Your task to perform on an android device: create a new album in the google photos Image 0: 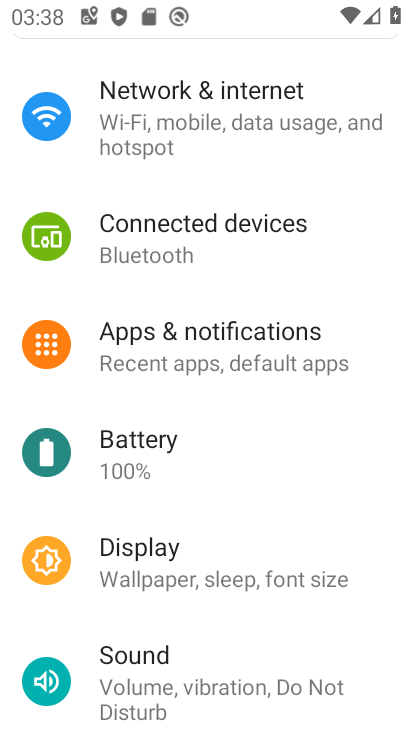
Step 0: press back button
Your task to perform on an android device: create a new album in the google photos Image 1: 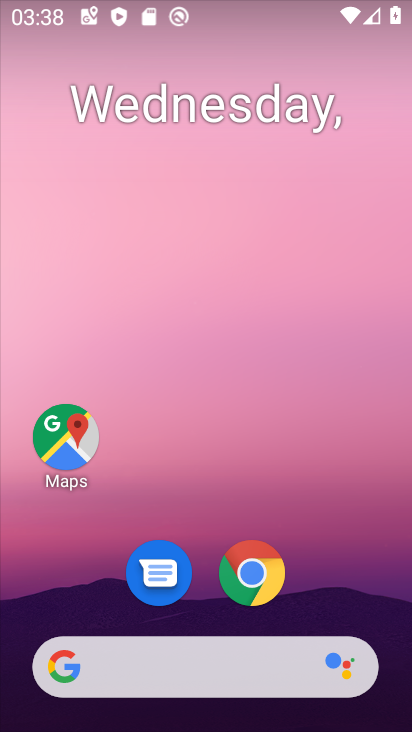
Step 1: drag from (329, 563) to (276, 40)
Your task to perform on an android device: create a new album in the google photos Image 2: 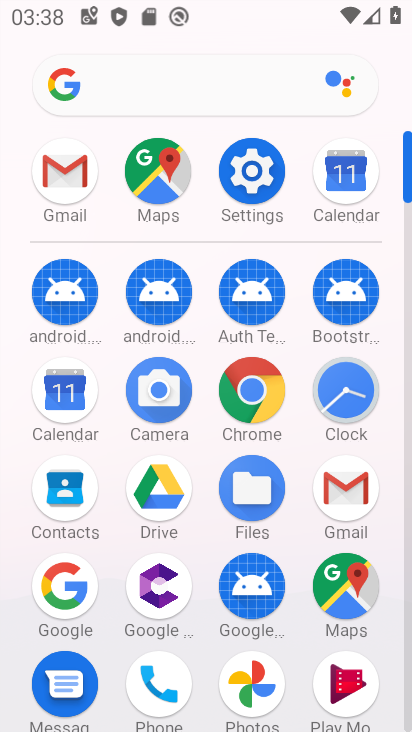
Step 2: drag from (192, 573) to (207, 401)
Your task to perform on an android device: create a new album in the google photos Image 3: 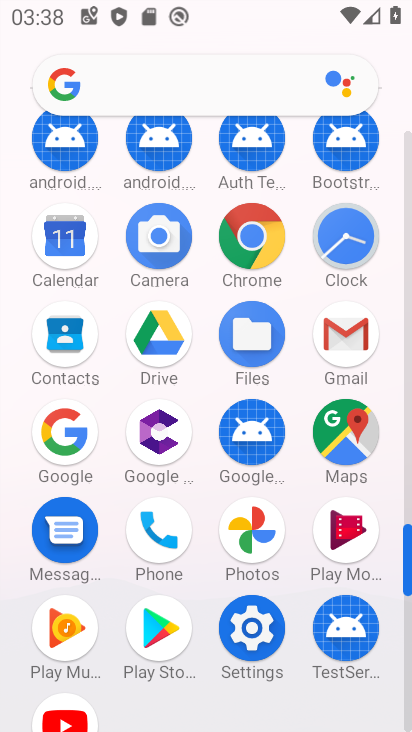
Step 3: click (253, 531)
Your task to perform on an android device: create a new album in the google photos Image 4: 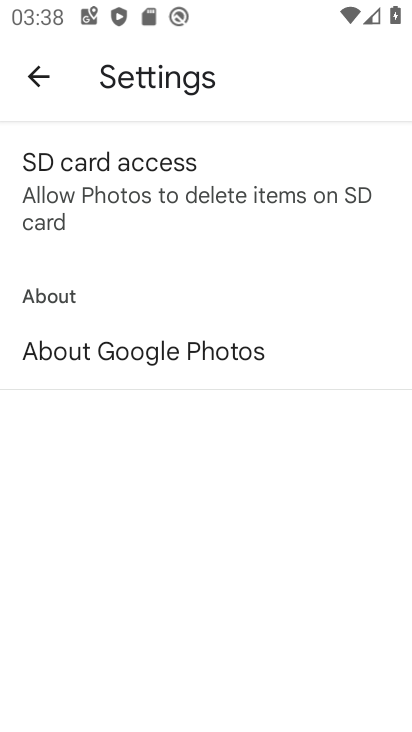
Step 4: press back button
Your task to perform on an android device: create a new album in the google photos Image 5: 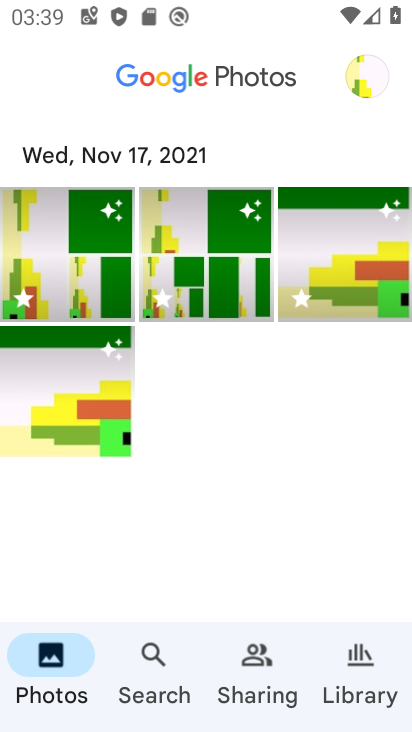
Step 5: click (359, 665)
Your task to perform on an android device: create a new album in the google photos Image 6: 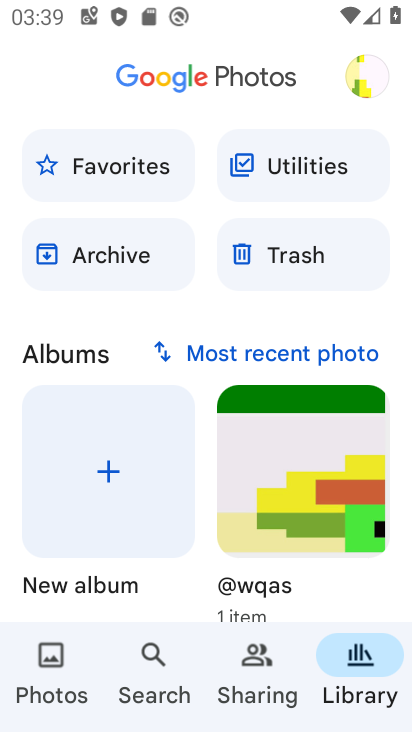
Step 6: click (102, 465)
Your task to perform on an android device: create a new album in the google photos Image 7: 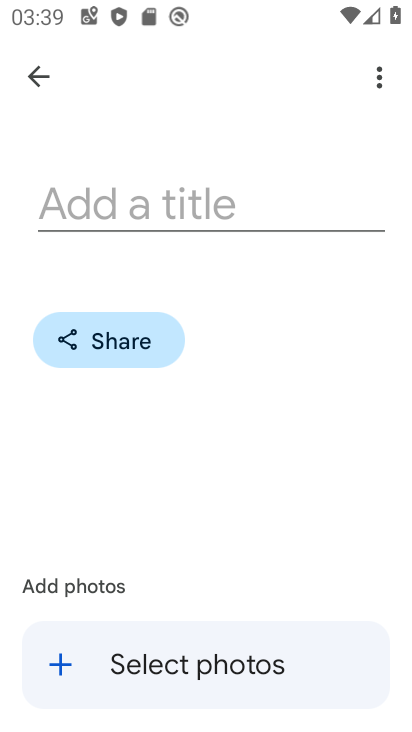
Step 7: click (197, 204)
Your task to perform on an android device: create a new album in the google photos Image 8: 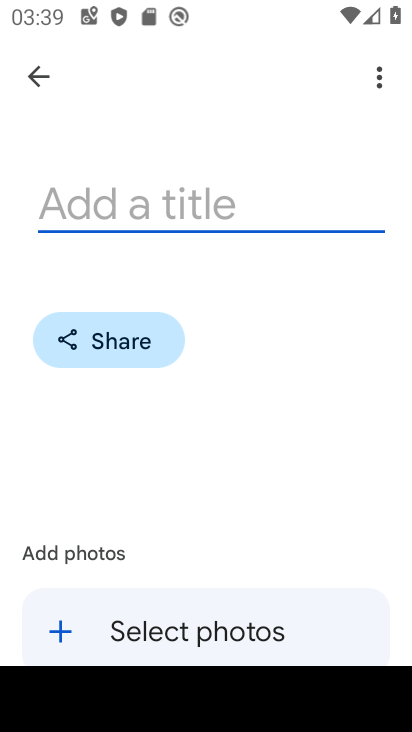
Step 8: type "Lilly"
Your task to perform on an android device: create a new album in the google photos Image 9: 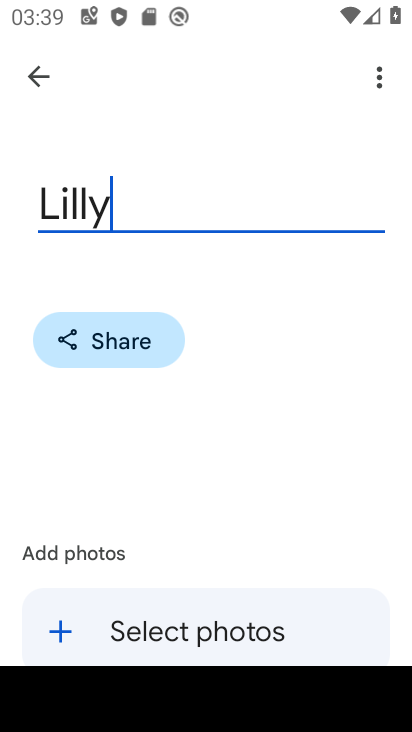
Step 9: type ""
Your task to perform on an android device: create a new album in the google photos Image 10: 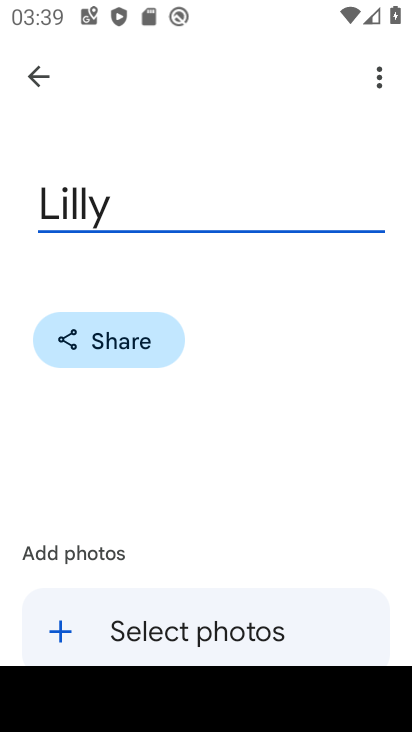
Step 10: click (61, 634)
Your task to perform on an android device: create a new album in the google photos Image 11: 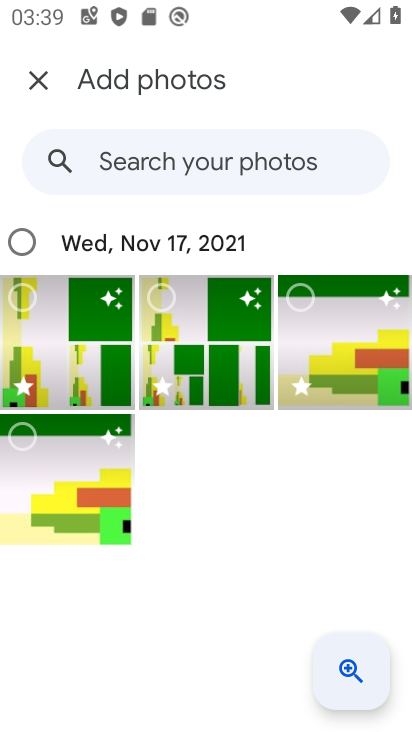
Step 11: click (16, 241)
Your task to perform on an android device: create a new album in the google photos Image 12: 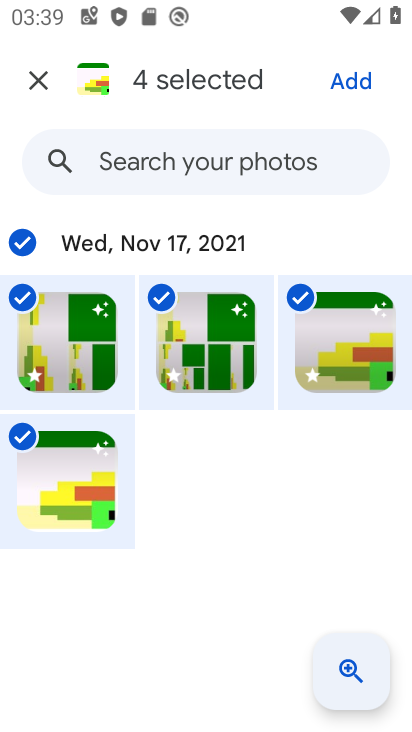
Step 12: click (343, 86)
Your task to perform on an android device: create a new album in the google photos Image 13: 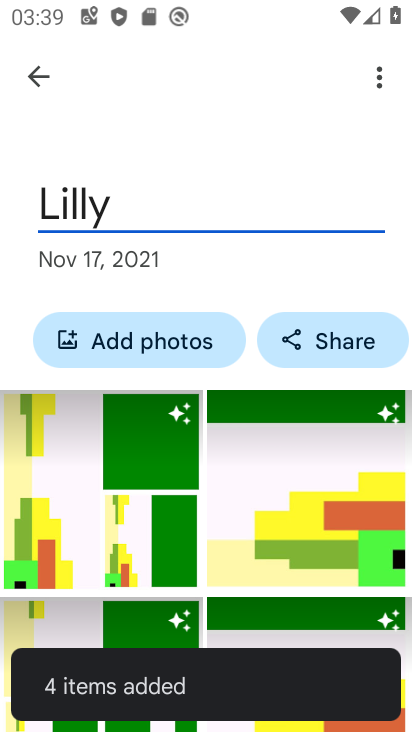
Step 13: task complete